Your task to perform on an android device: Go to Reddit.com Image 0: 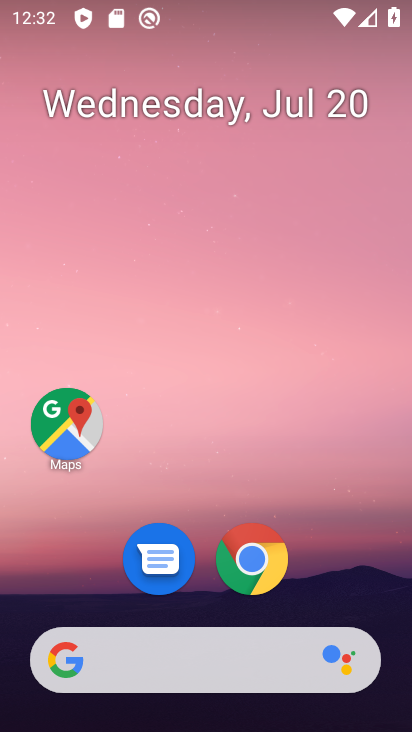
Step 0: drag from (358, 564) to (362, 104)
Your task to perform on an android device: Go to Reddit.com Image 1: 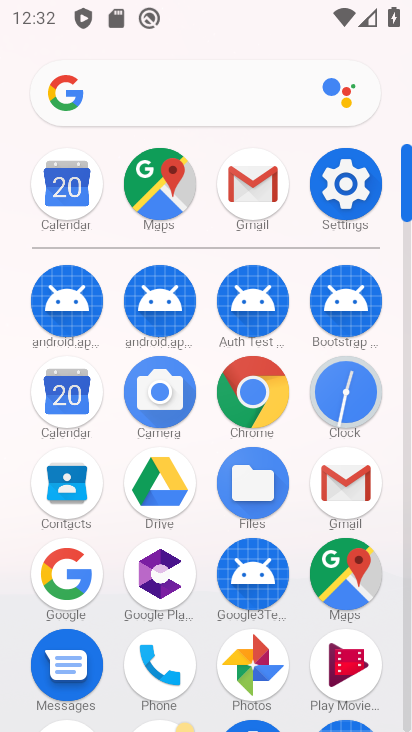
Step 1: click (249, 398)
Your task to perform on an android device: Go to Reddit.com Image 2: 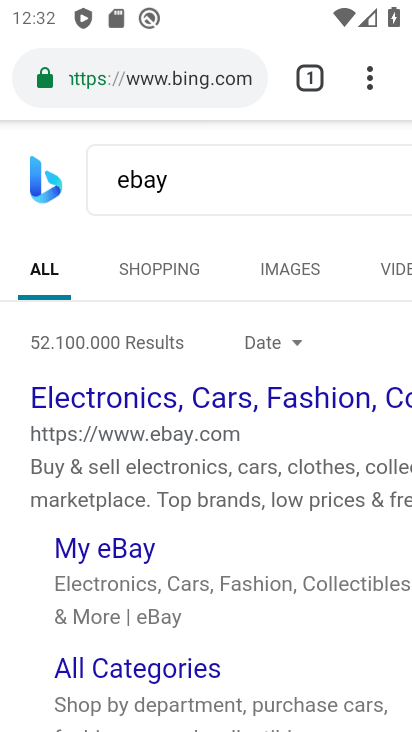
Step 2: click (209, 88)
Your task to perform on an android device: Go to Reddit.com Image 3: 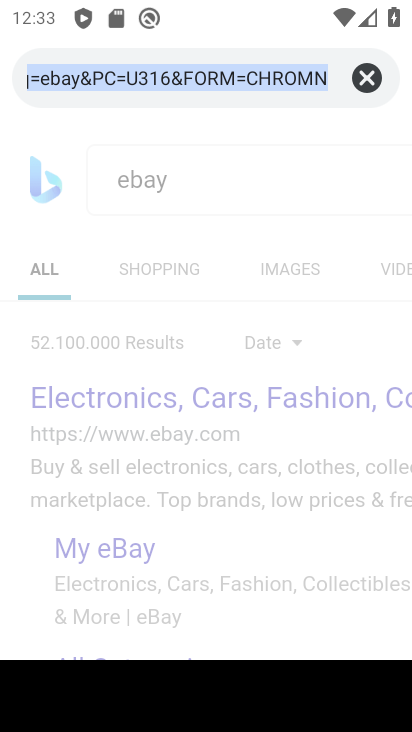
Step 3: type "reddit.com"
Your task to perform on an android device: Go to Reddit.com Image 4: 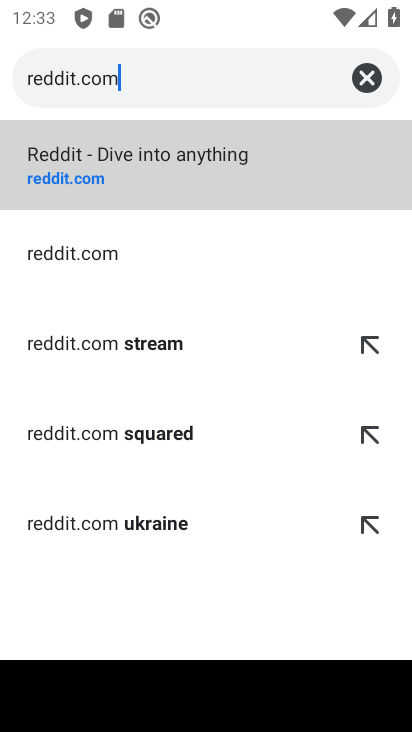
Step 4: click (181, 243)
Your task to perform on an android device: Go to Reddit.com Image 5: 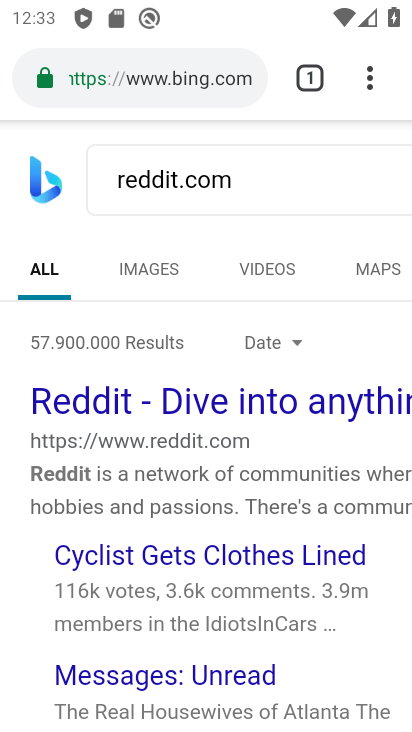
Step 5: task complete